Your task to perform on an android device: delete location history Image 0: 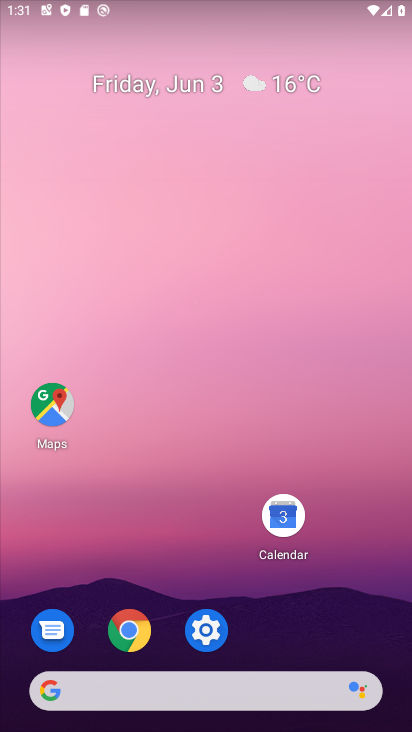
Step 0: press home button
Your task to perform on an android device: delete location history Image 1: 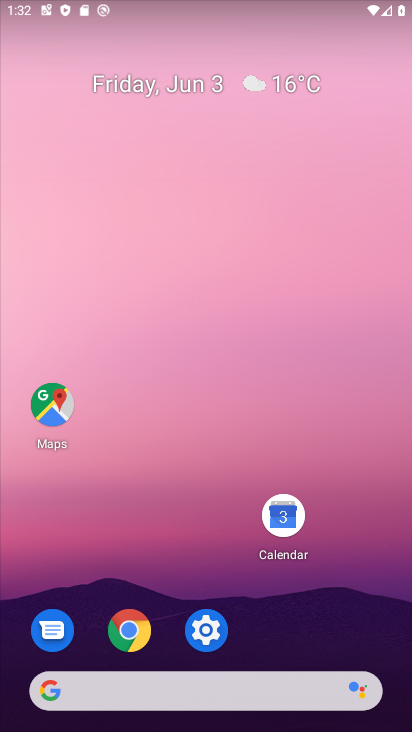
Step 1: drag from (253, 705) to (165, 99)
Your task to perform on an android device: delete location history Image 2: 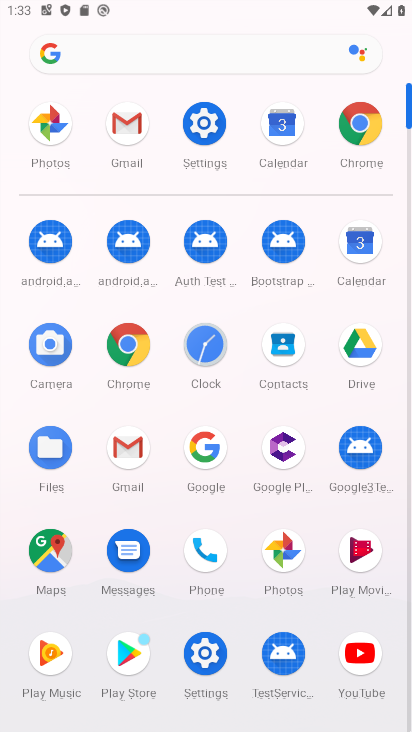
Step 2: click (193, 146)
Your task to perform on an android device: delete location history Image 3: 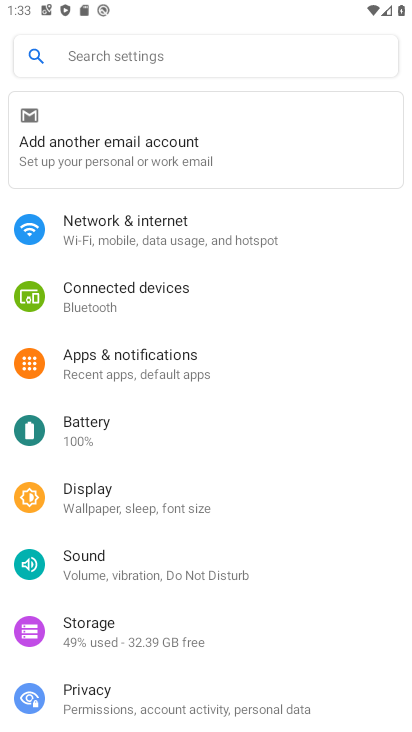
Step 3: click (127, 59)
Your task to perform on an android device: delete location history Image 4: 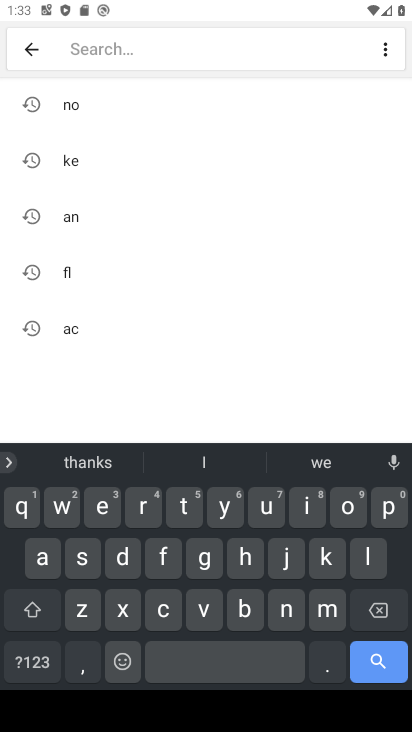
Step 4: click (378, 563)
Your task to perform on an android device: delete location history Image 5: 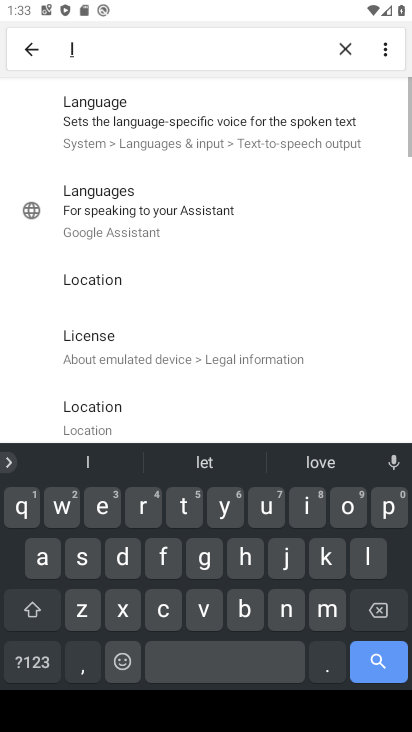
Step 5: click (344, 507)
Your task to perform on an android device: delete location history Image 6: 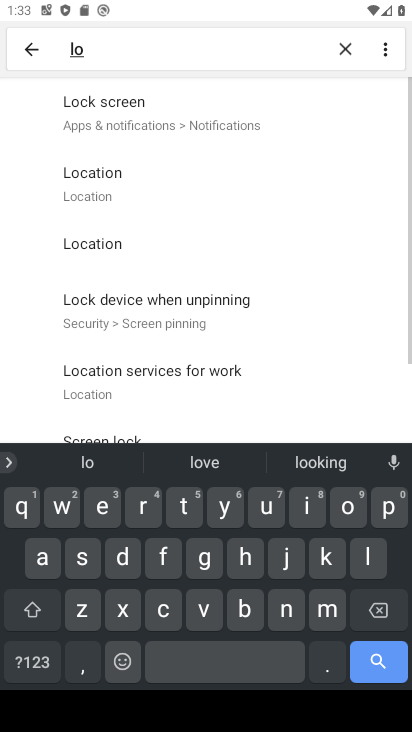
Step 6: click (118, 186)
Your task to perform on an android device: delete location history Image 7: 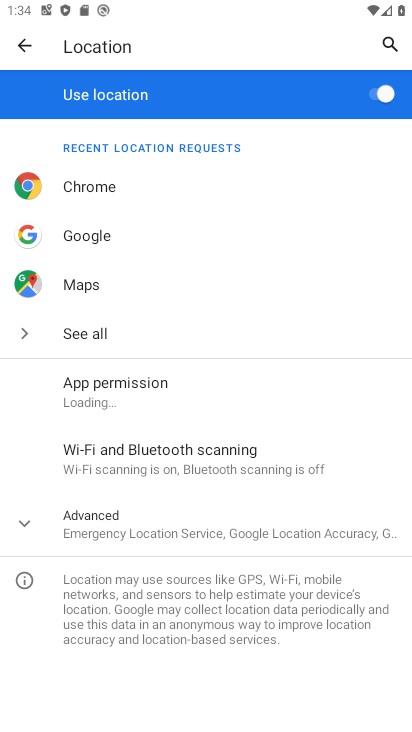
Step 7: click (57, 524)
Your task to perform on an android device: delete location history Image 8: 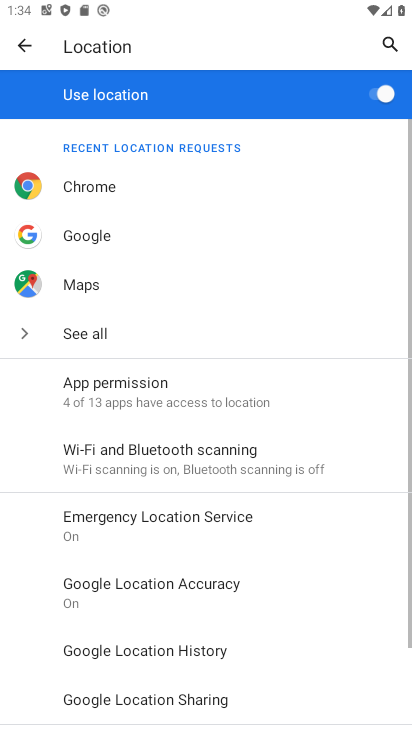
Step 8: click (165, 642)
Your task to perform on an android device: delete location history Image 9: 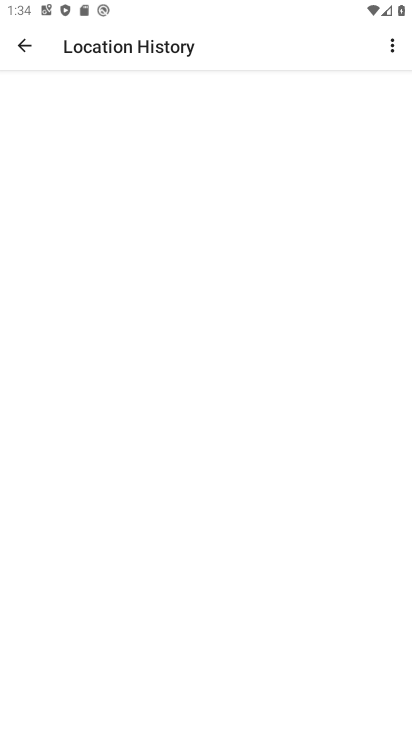
Step 9: task complete